Your task to perform on an android device: Go to ESPN.com Image 0: 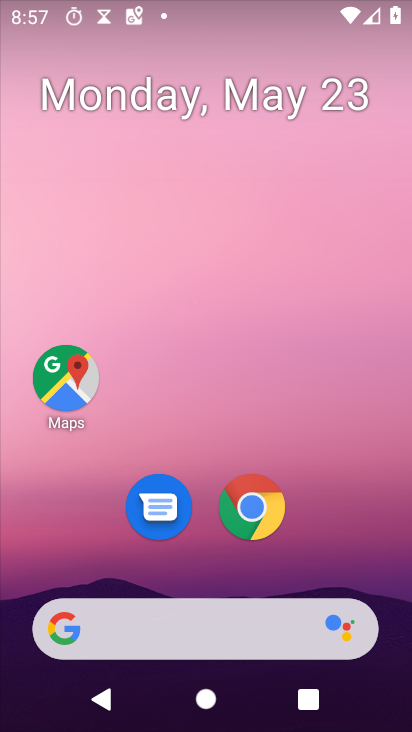
Step 0: drag from (357, 405) to (344, 88)
Your task to perform on an android device: Go to ESPN.com Image 1: 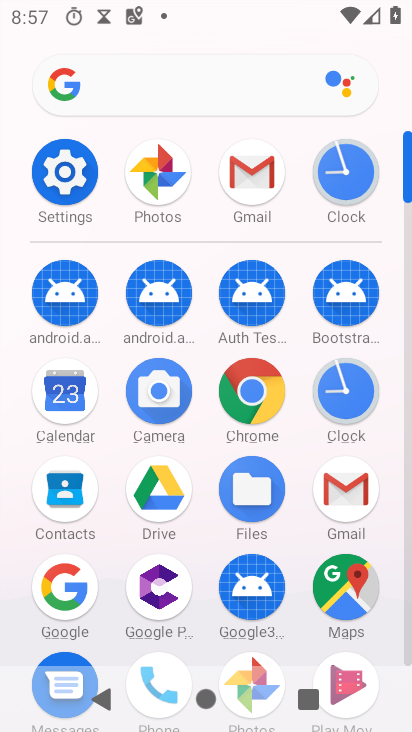
Step 1: click (268, 392)
Your task to perform on an android device: Go to ESPN.com Image 2: 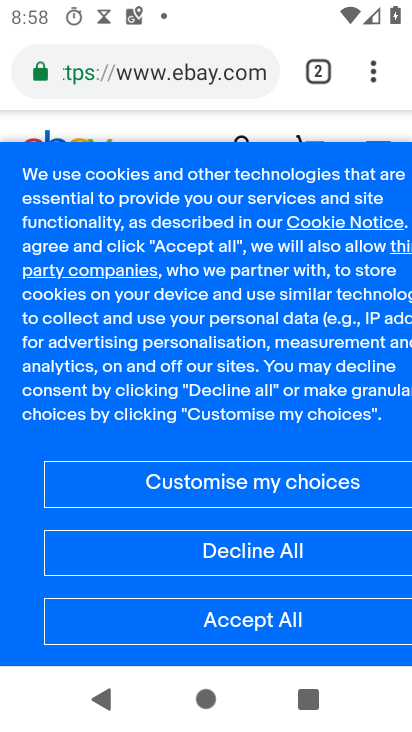
Step 2: click (219, 85)
Your task to perform on an android device: Go to ESPN.com Image 3: 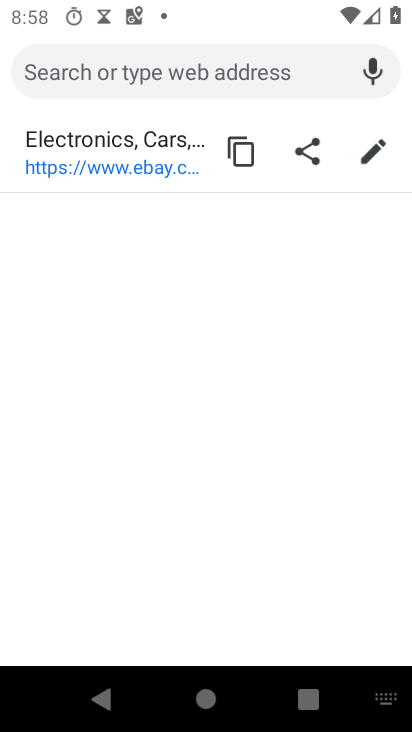
Step 3: type "espn"
Your task to perform on an android device: Go to ESPN.com Image 4: 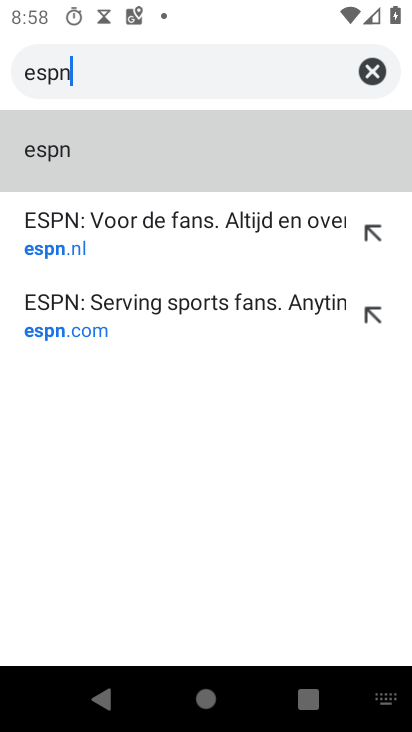
Step 4: click (146, 231)
Your task to perform on an android device: Go to ESPN.com Image 5: 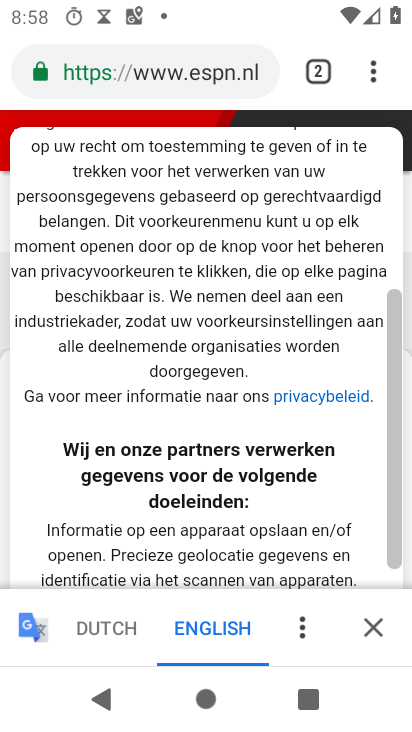
Step 5: task complete